Your task to perform on an android device: Do I have any events today? Image 0: 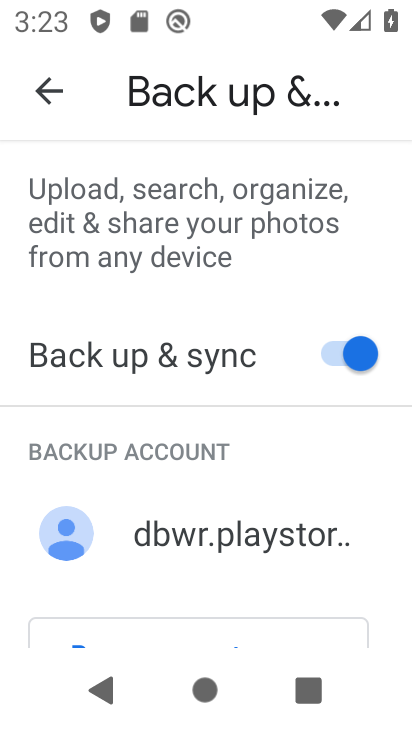
Step 0: press home button
Your task to perform on an android device: Do I have any events today? Image 1: 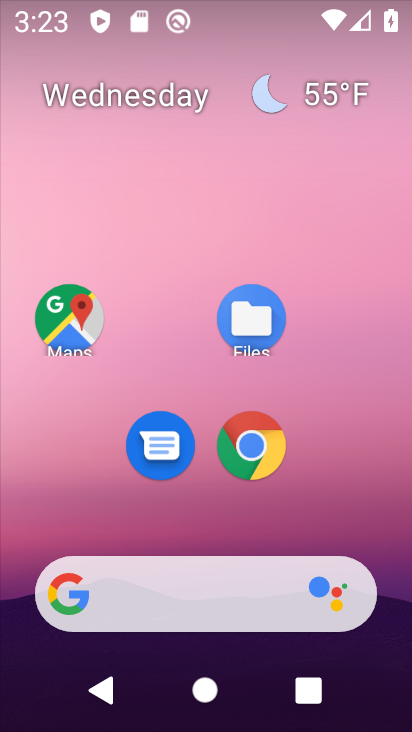
Step 1: drag from (317, 466) to (325, 71)
Your task to perform on an android device: Do I have any events today? Image 2: 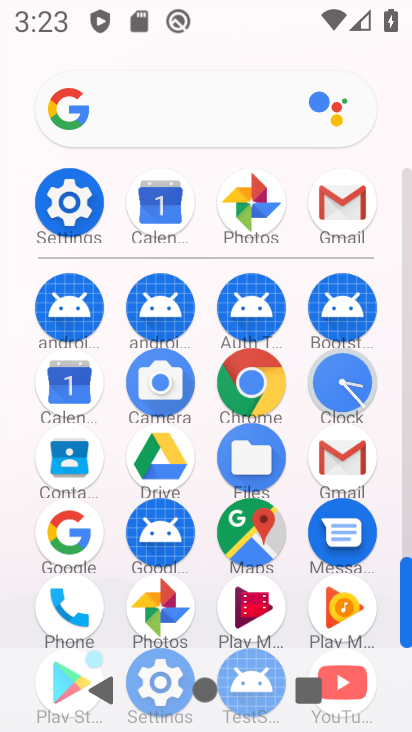
Step 2: click (159, 204)
Your task to perform on an android device: Do I have any events today? Image 3: 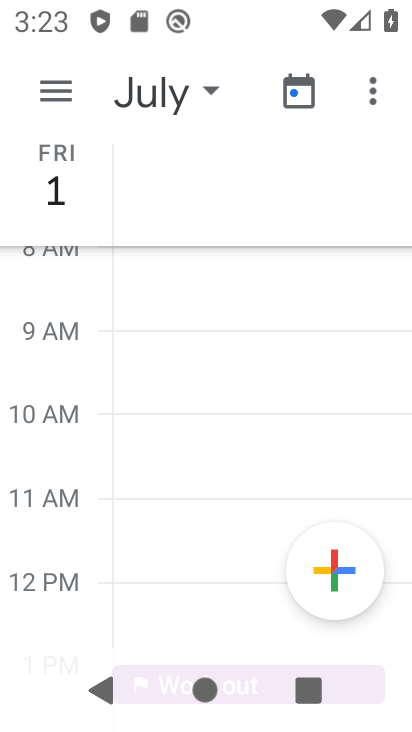
Step 3: click (59, 110)
Your task to perform on an android device: Do I have any events today? Image 4: 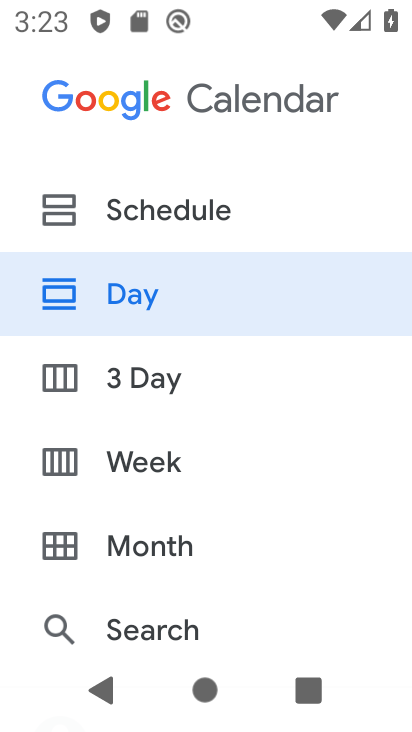
Step 4: click (178, 523)
Your task to perform on an android device: Do I have any events today? Image 5: 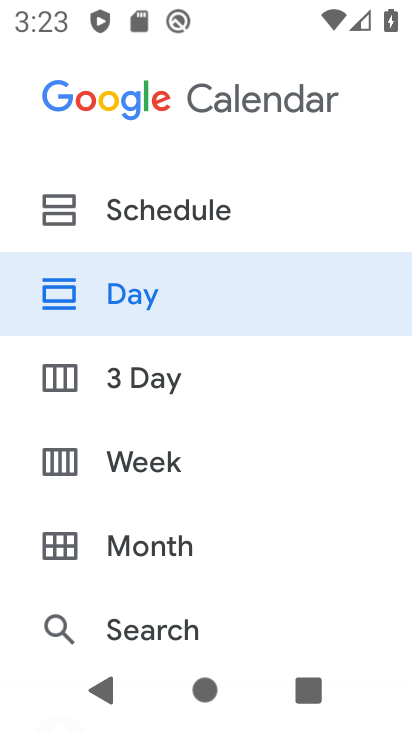
Step 5: click (177, 552)
Your task to perform on an android device: Do I have any events today? Image 6: 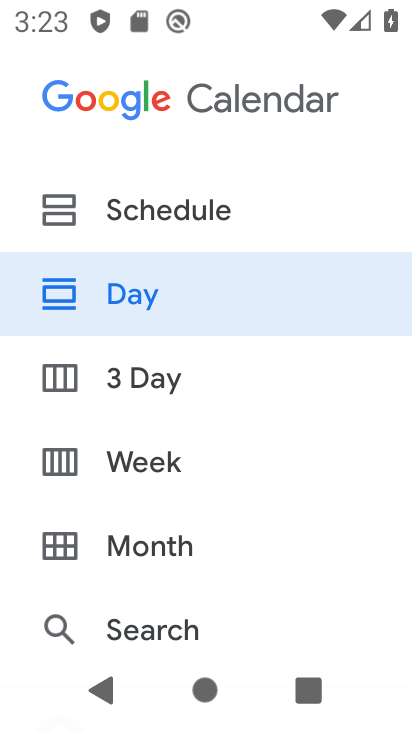
Step 6: click (177, 552)
Your task to perform on an android device: Do I have any events today? Image 7: 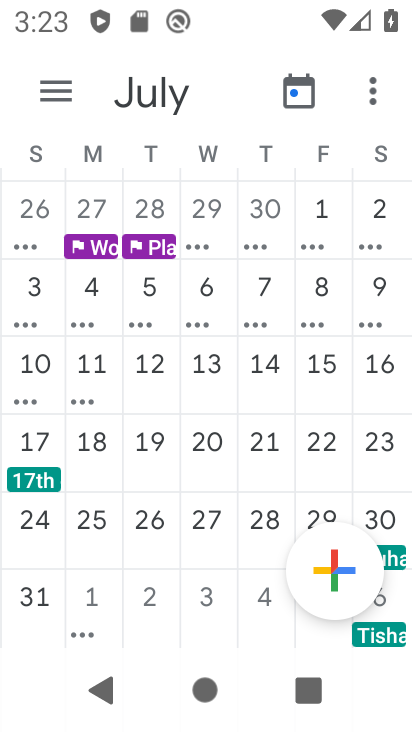
Step 7: click (136, 222)
Your task to perform on an android device: Do I have any events today? Image 8: 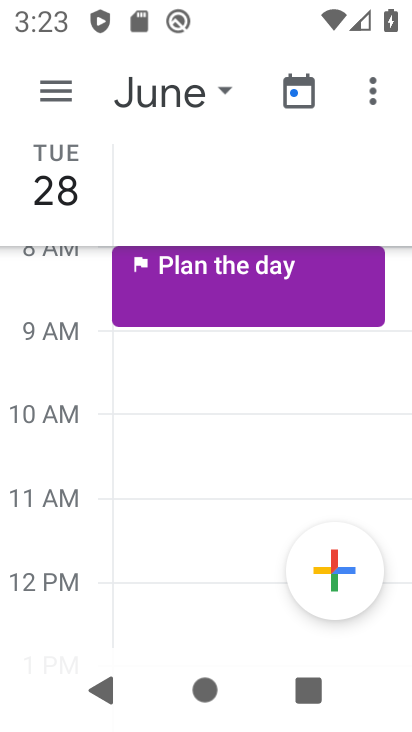
Step 8: click (136, 222)
Your task to perform on an android device: Do I have any events today? Image 9: 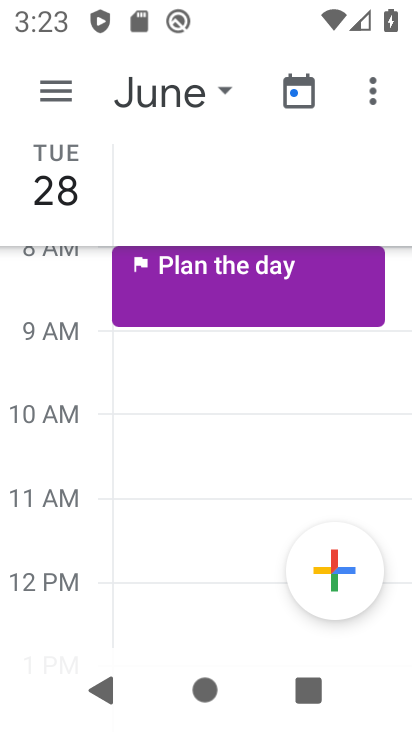
Step 9: click (136, 222)
Your task to perform on an android device: Do I have any events today? Image 10: 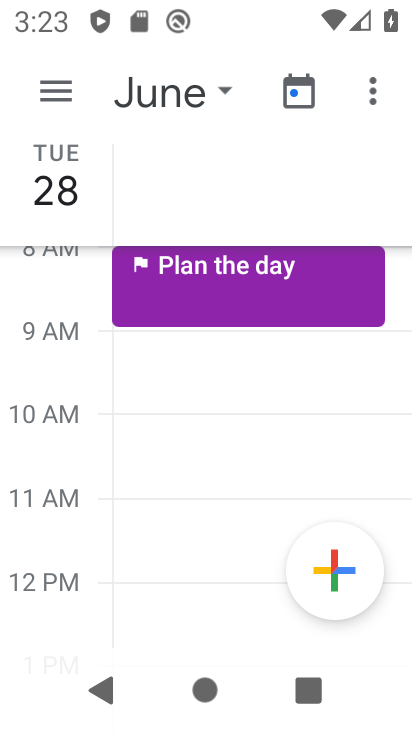
Step 10: click (136, 222)
Your task to perform on an android device: Do I have any events today? Image 11: 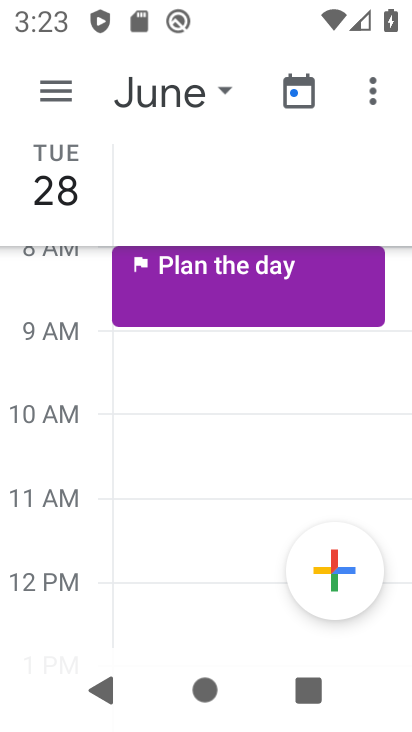
Step 11: click (136, 222)
Your task to perform on an android device: Do I have any events today? Image 12: 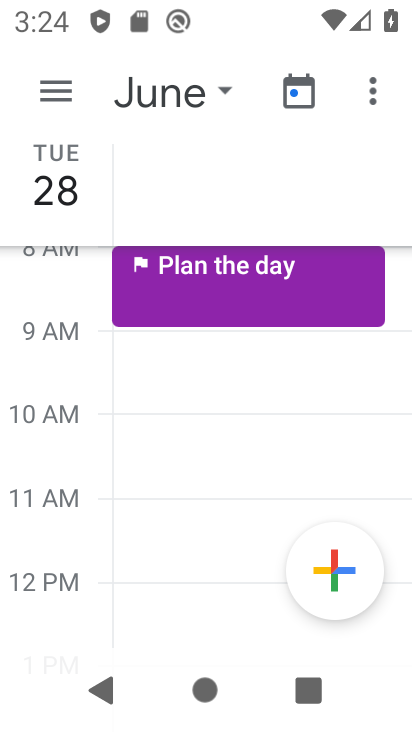
Step 12: task complete